Your task to perform on an android device: Go to privacy settings Image 0: 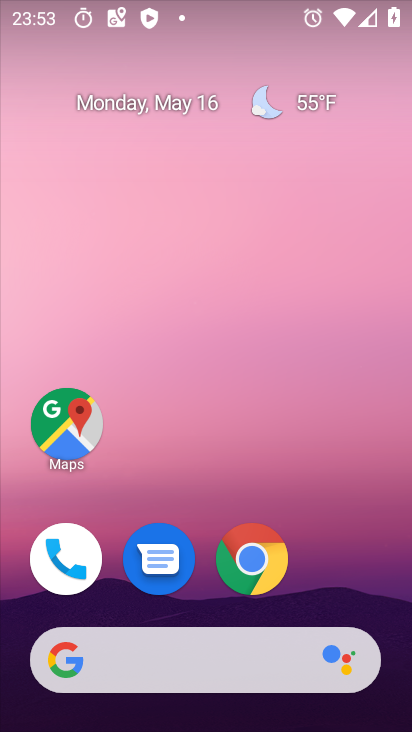
Step 0: drag from (355, 527) to (335, 124)
Your task to perform on an android device: Go to privacy settings Image 1: 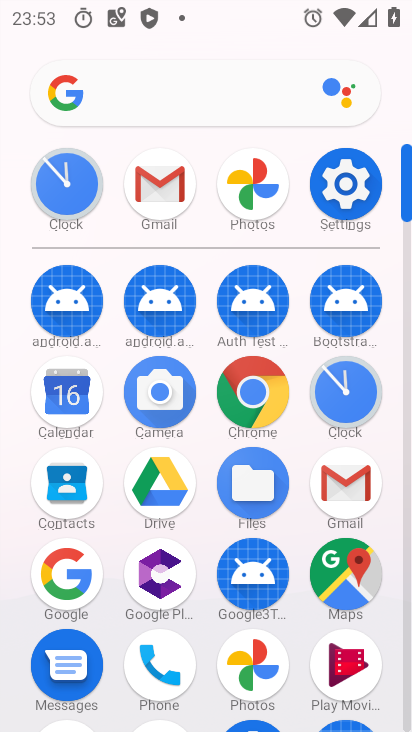
Step 1: click (333, 187)
Your task to perform on an android device: Go to privacy settings Image 2: 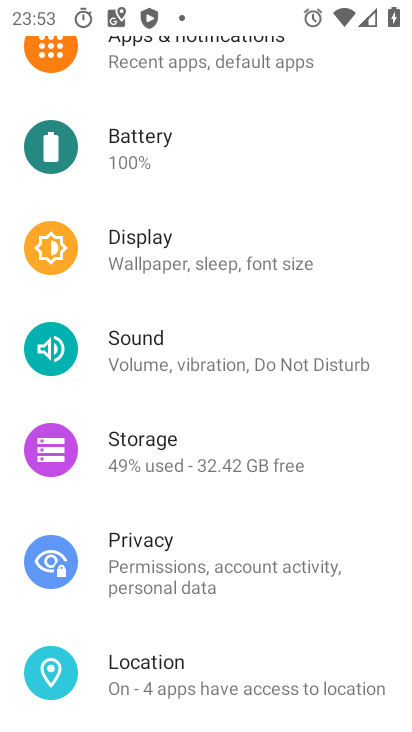
Step 2: click (275, 561)
Your task to perform on an android device: Go to privacy settings Image 3: 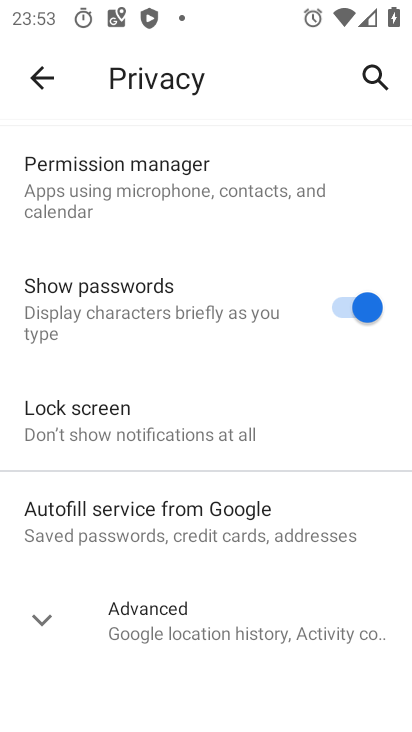
Step 3: task complete